Your task to perform on an android device: turn off airplane mode Image 0: 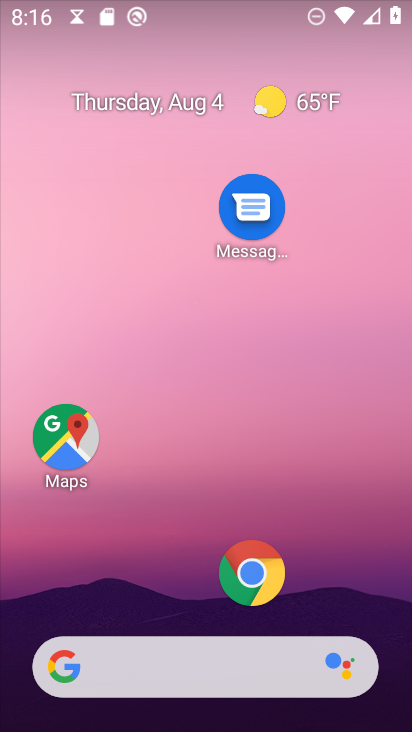
Step 0: press home button
Your task to perform on an android device: turn off airplane mode Image 1: 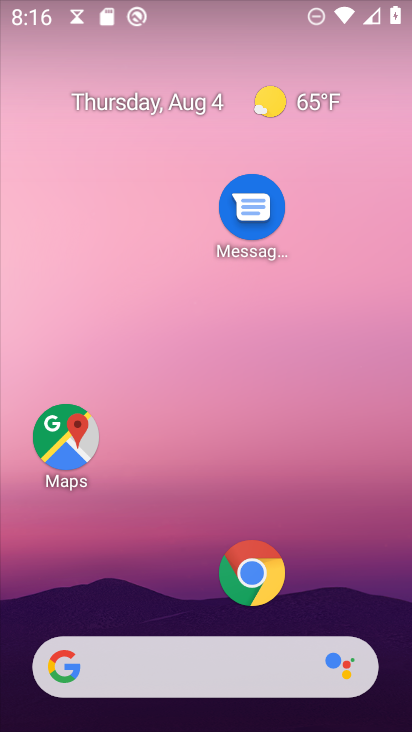
Step 1: task complete